Your task to perform on an android device: turn on the 12-hour format for clock Image 0: 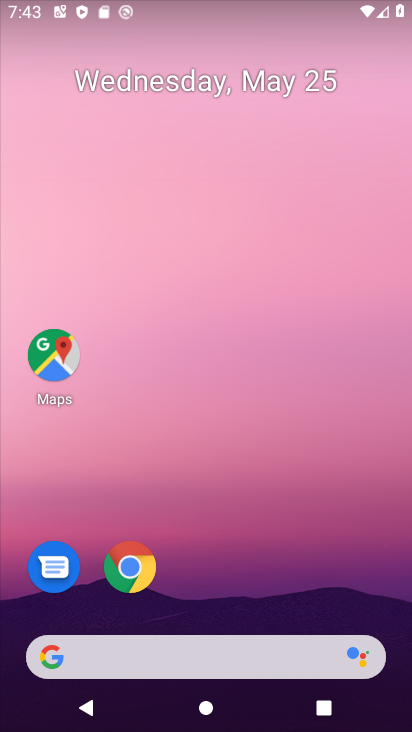
Step 0: drag from (302, 563) to (298, 106)
Your task to perform on an android device: turn on the 12-hour format for clock Image 1: 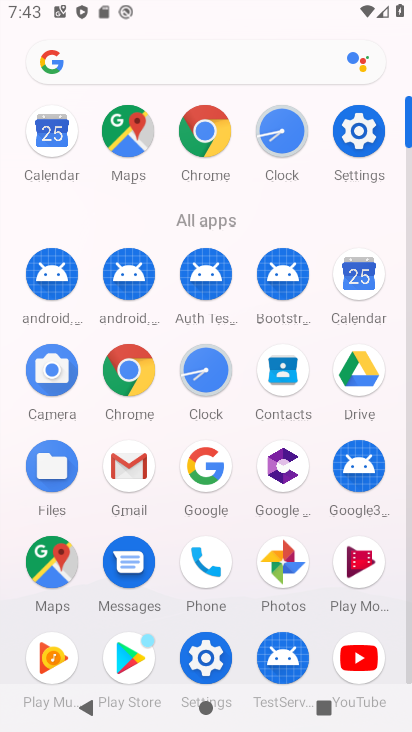
Step 1: click (371, 316)
Your task to perform on an android device: turn on the 12-hour format for clock Image 2: 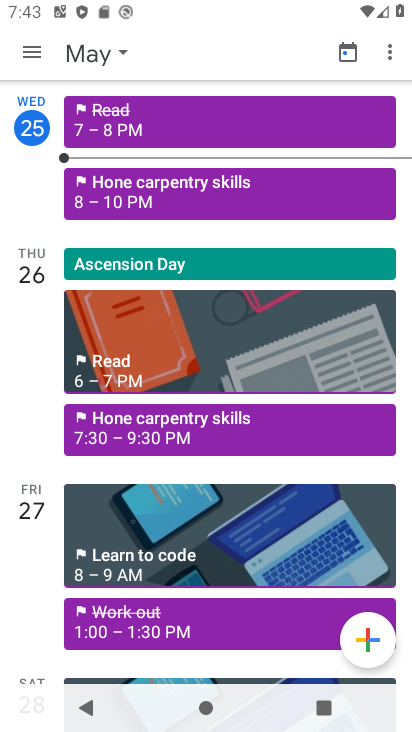
Step 2: press home button
Your task to perform on an android device: turn on the 12-hour format for clock Image 3: 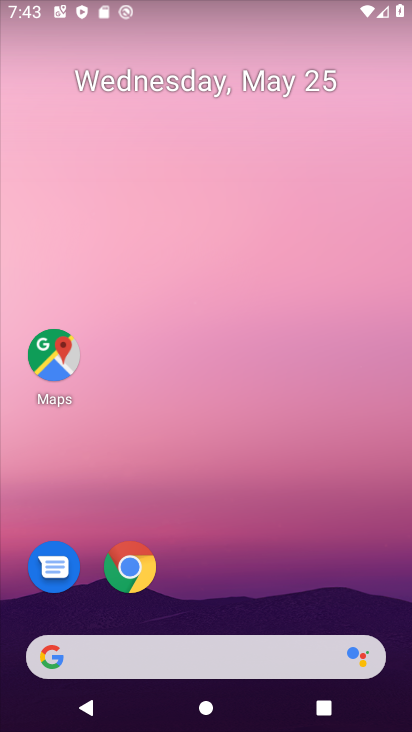
Step 3: drag from (248, 567) to (288, 55)
Your task to perform on an android device: turn on the 12-hour format for clock Image 4: 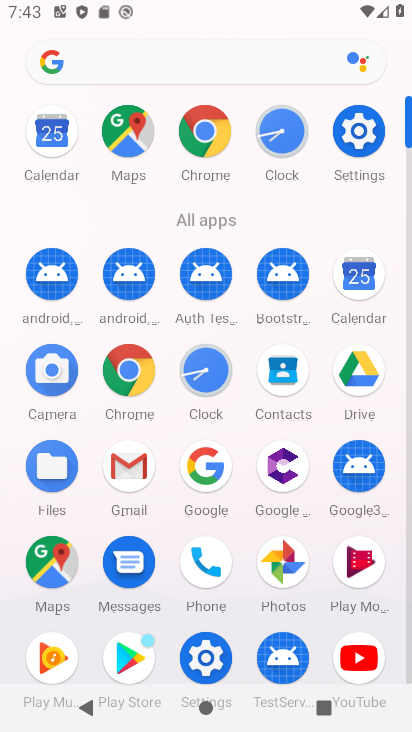
Step 4: click (287, 169)
Your task to perform on an android device: turn on the 12-hour format for clock Image 5: 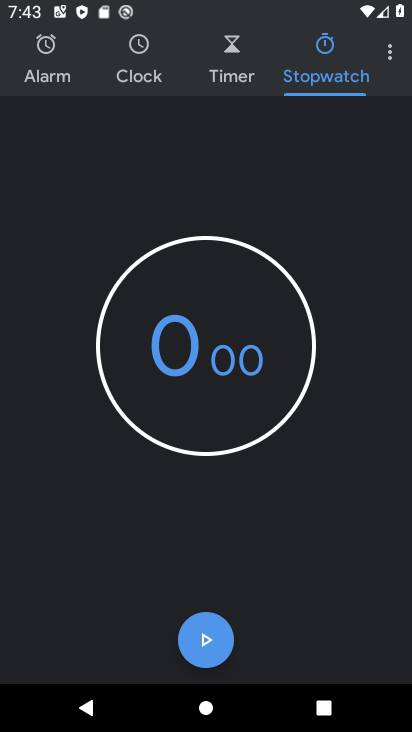
Step 5: click (391, 60)
Your task to perform on an android device: turn on the 12-hour format for clock Image 6: 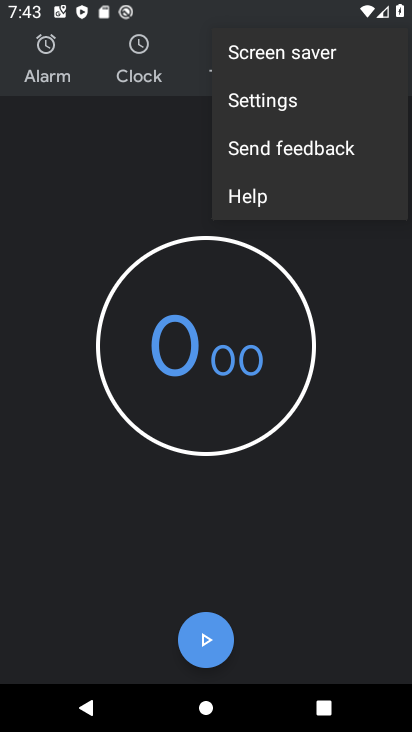
Step 6: click (277, 107)
Your task to perform on an android device: turn on the 12-hour format for clock Image 7: 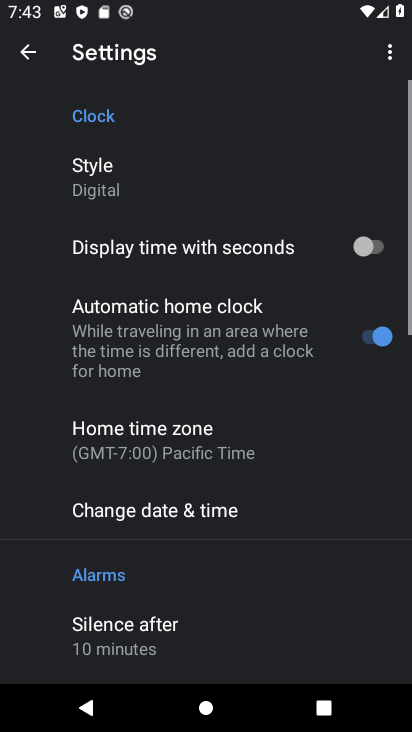
Step 7: click (196, 519)
Your task to perform on an android device: turn on the 12-hour format for clock Image 8: 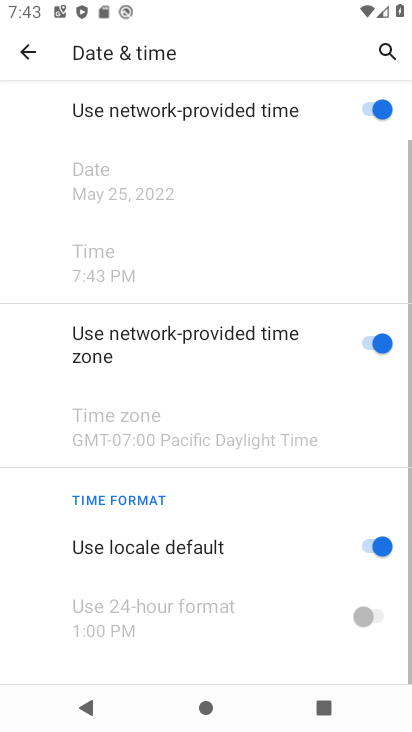
Step 8: task complete